Your task to perform on an android device: toggle priority inbox in the gmail app Image 0: 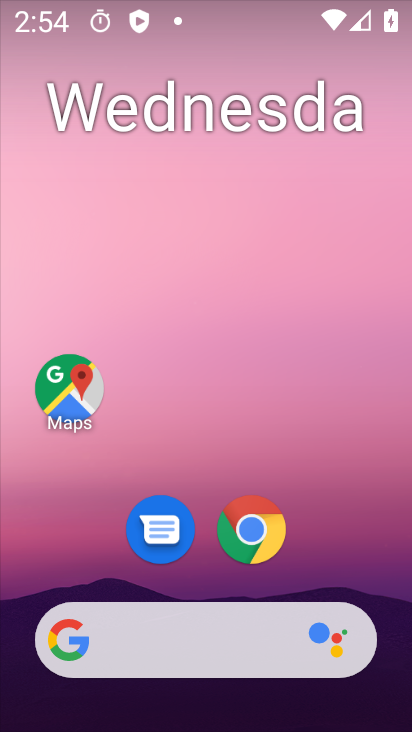
Step 0: drag from (339, 525) to (354, 144)
Your task to perform on an android device: toggle priority inbox in the gmail app Image 1: 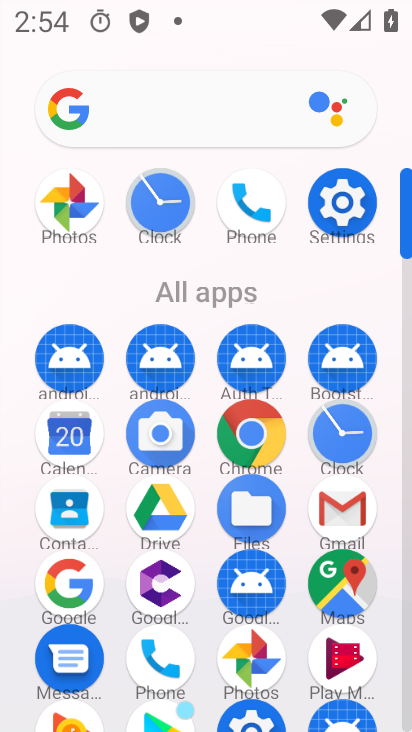
Step 1: click (343, 507)
Your task to perform on an android device: toggle priority inbox in the gmail app Image 2: 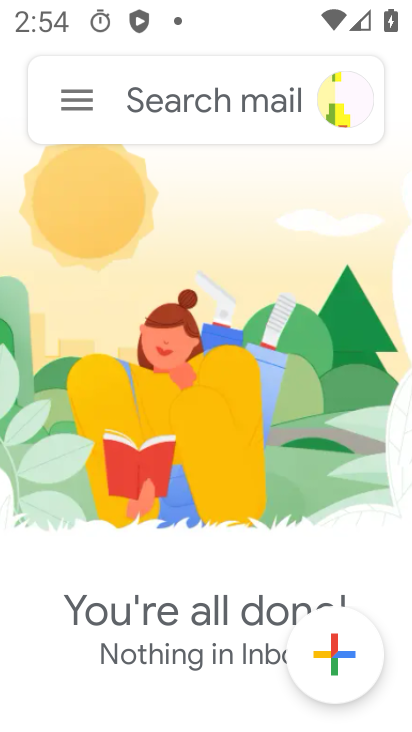
Step 2: click (59, 94)
Your task to perform on an android device: toggle priority inbox in the gmail app Image 3: 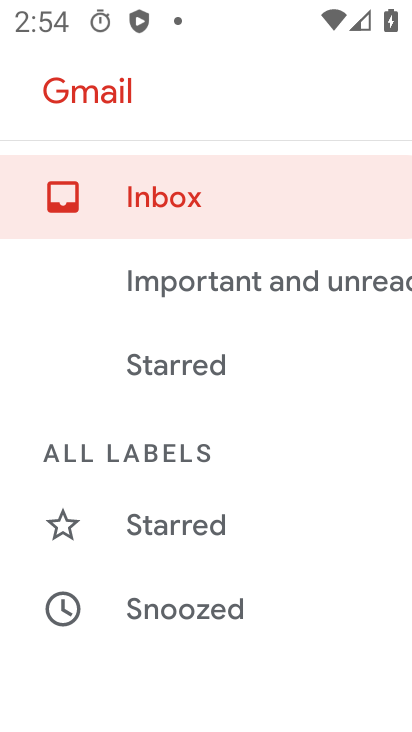
Step 3: drag from (134, 581) to (126, 424)
Your task to perform on an android device: toggle priority inbox in the gmail app Image 4: 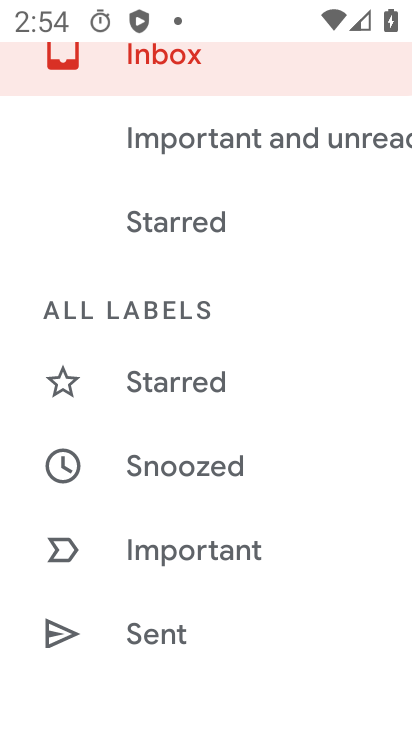
Step 4: drag from (145, 611) to (126, 435)
Your task to perform on an android device: toggle priority inbox in the gmail app Image 5: 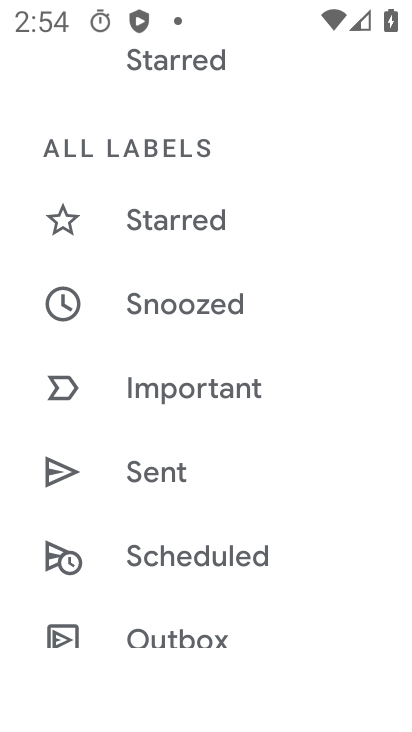
Step 5: drag from (89, 605) to (67, 450)
Your task to perform on an android device: toggle priority inbox in the gmail app Image 6: 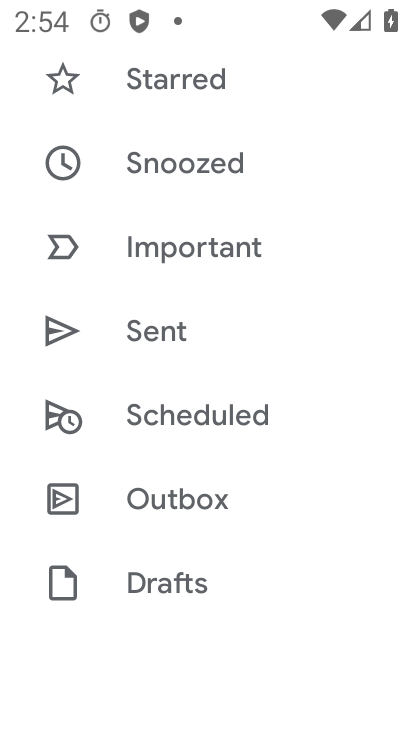
Step 6: drag from (76, 620) to (69, 505)
Your task to perform on an android device: toggle priority inbox in the gmail app Image 7: 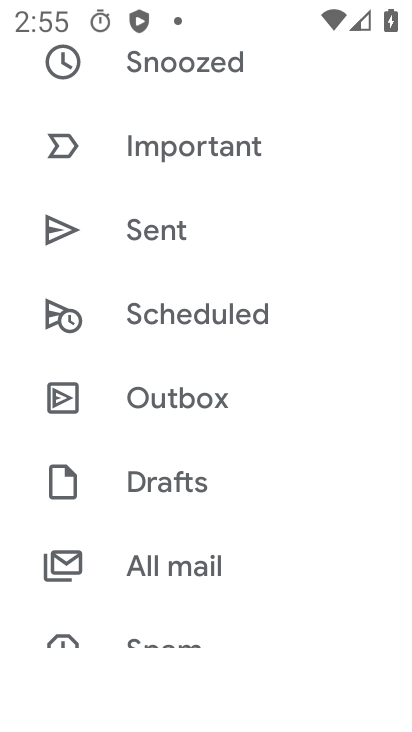
Step 7: drag from (43, 646) to (55, 499)
Your task to perform on an android device: toggle priority inbox in the gmail app Image 8: 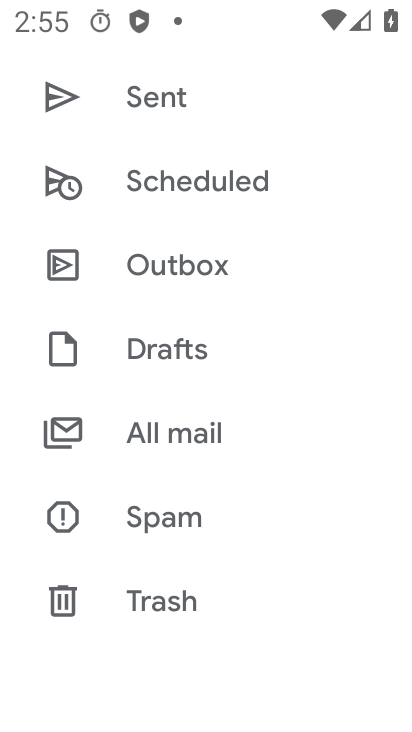
Step 8: drag from (42, 591) to (62, 432)
Your task to perform on an android device: toggle priority inbox in the gmail app Image 9: 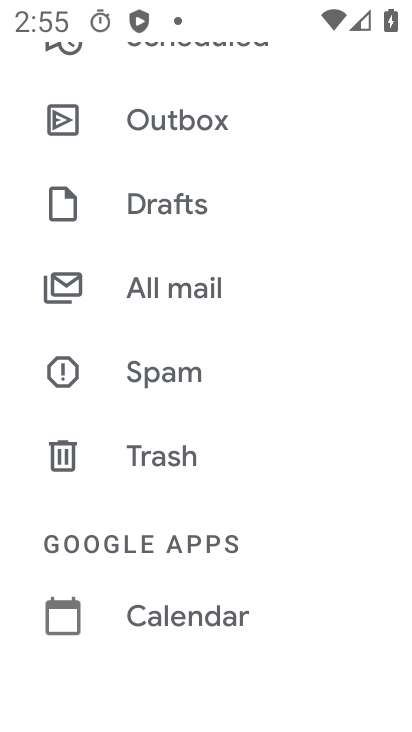
Step 9: drag from (85, 589) to (86, 470)
Your task to perform on an android device: toggle priority inbox in the gmail app Image 10: 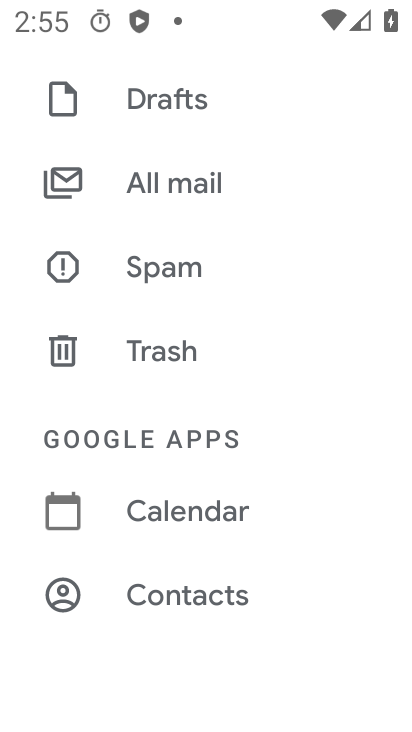
Step 10: drag from (89, 587) to (81, 454)
Your task to perform on an android device: toggle priority inbox in the gmail app Image 11: 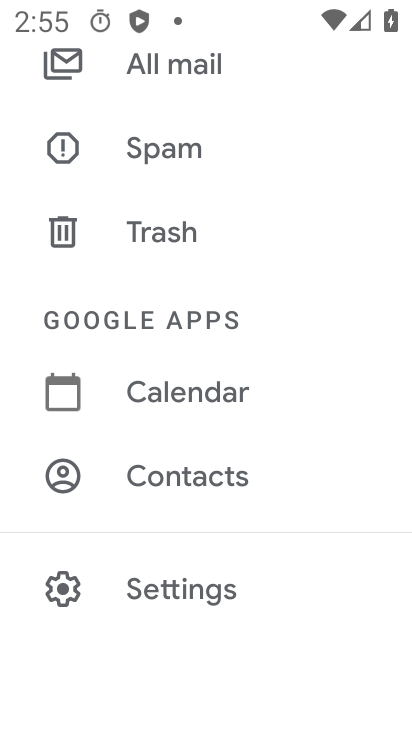
Step 11: click (97, 579)
Your task to perform on an android device: toggle priority inbox in the gmail app Image 12: 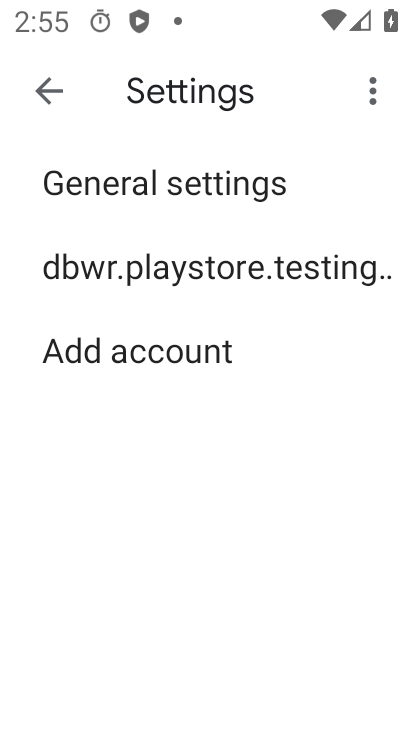
Step 12: click (149, 293)
Your task to perform on an android device: toggle priority inbox in the gmail app Image 13: 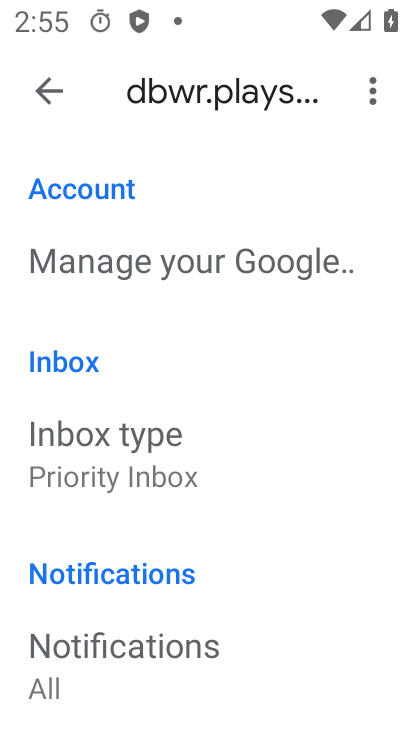
Step 13: click (185, 452)
Your task to perform on an android device: toggle priority inbox in the gmail app Image 14: 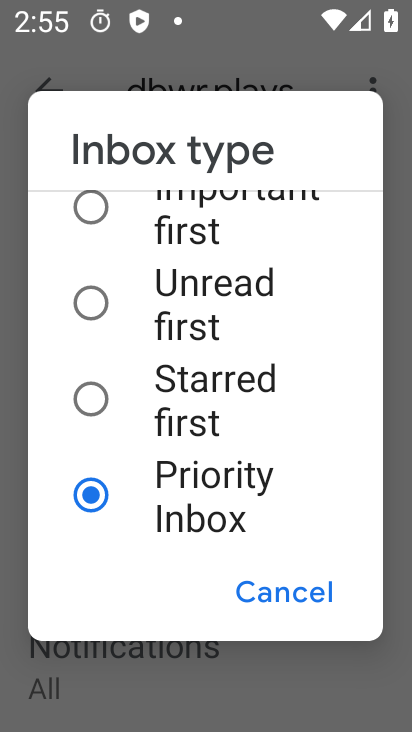
Step 14: click (182, 213)
Your task to perform on an android device: toggle priority inbox in the gmail app Image 15: 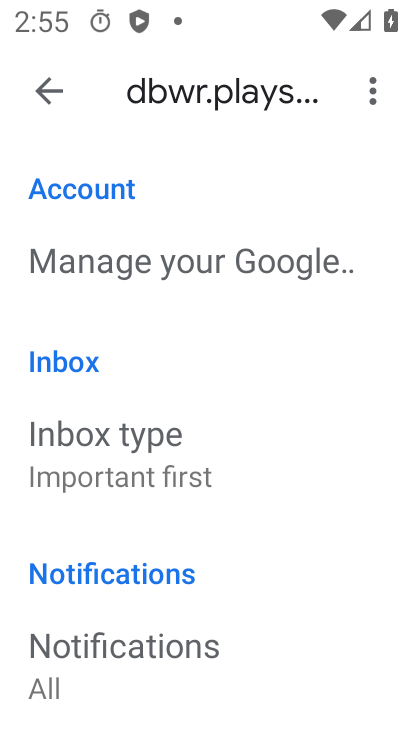
Step 15: task complete